Your task to perform on an android device: visit the assistant section in the google photos Image 0: 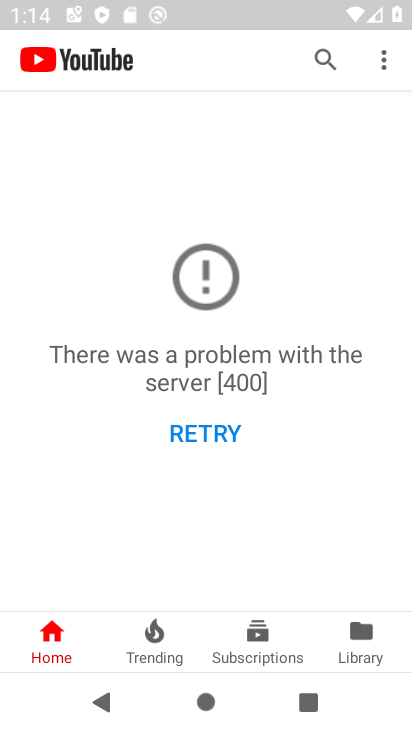
Step 0: press home button
Your task to perform on an android device: visit the assistant section in the google photos Image 1: 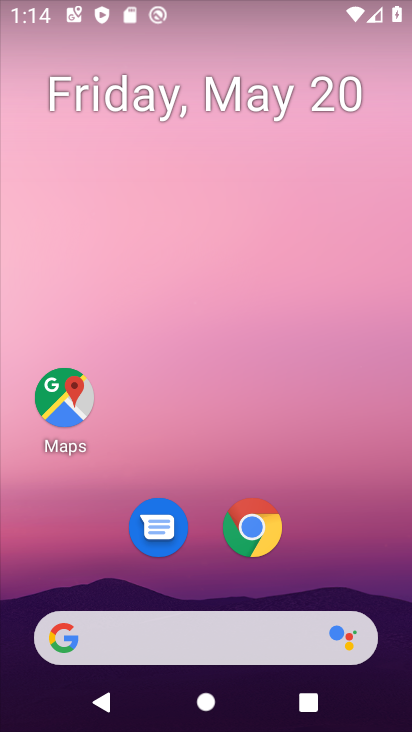
Step 1: drag from (178, 640) to (313, 213)
Your task to perform on an android device: visit the assistant section in the google photos Image 2: 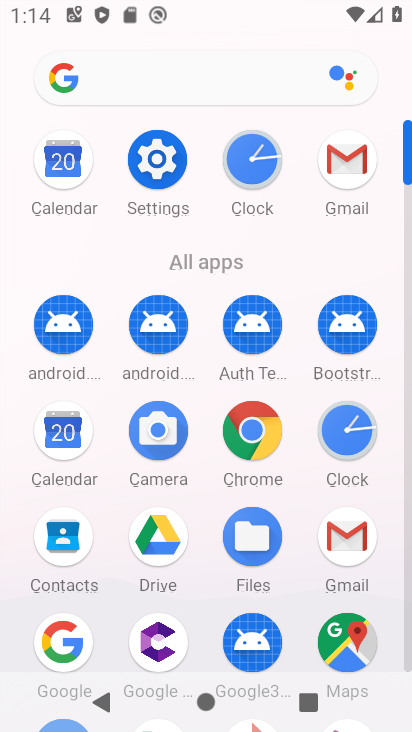
Step 2: drag from (202, 567) to (270, 272)
Your task to perform on an android device: visit the assistant section in the google photos Image 3: 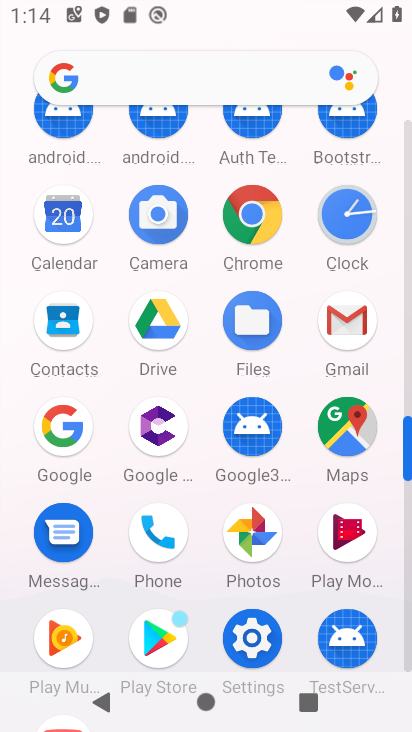
Step 3: click (256, 525)
Your task to perform on an android device: visit the assistant section in the google photos Image 4: 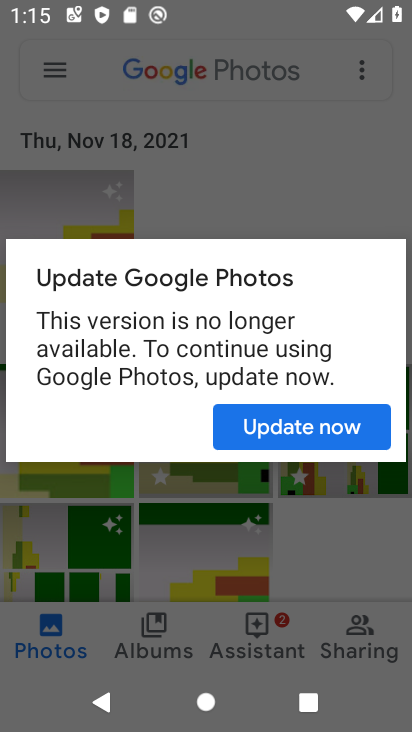
Step 4: click (297, 424)
Your task to perform on an android device: visit the assistant section in the google photos Image 5: 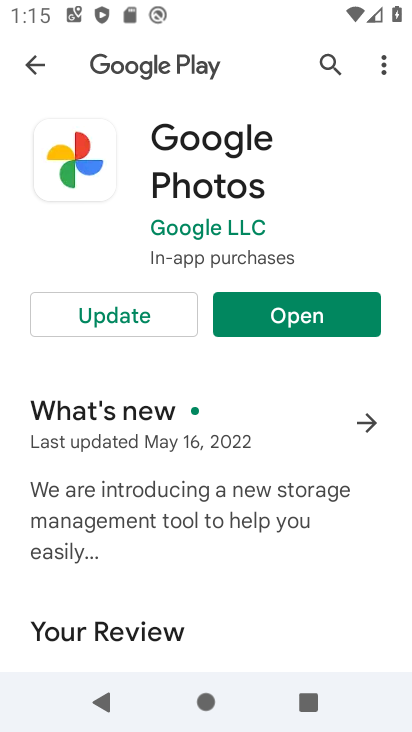
Step 5: click (305, 319)
Your task to perform on an android device: visit the assistant section in the google photos Image 6: 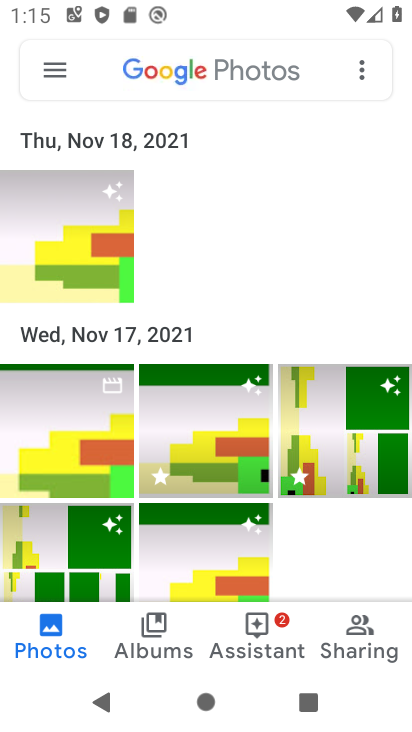
Step 6: click (236, 642)
Your task to perform on an android device: visit the assistant section in the google photos Image 7: 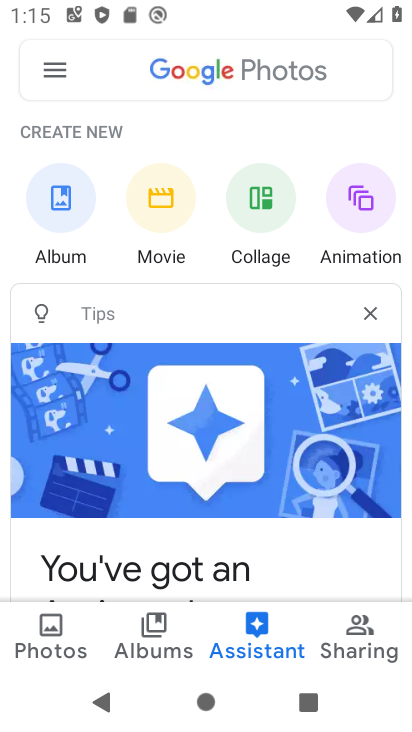
Step 7: task complete